Your task to perform on an android device: Open Reddit.com Image 0: 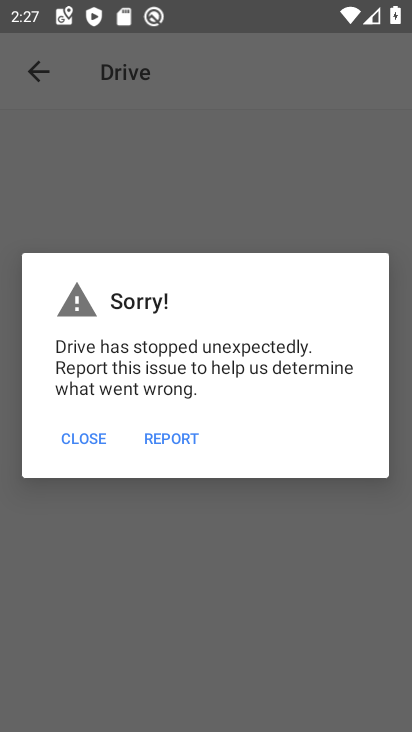
Step 0: press home button
Your task to perform on an android device: Open Reddit.com Image 1: 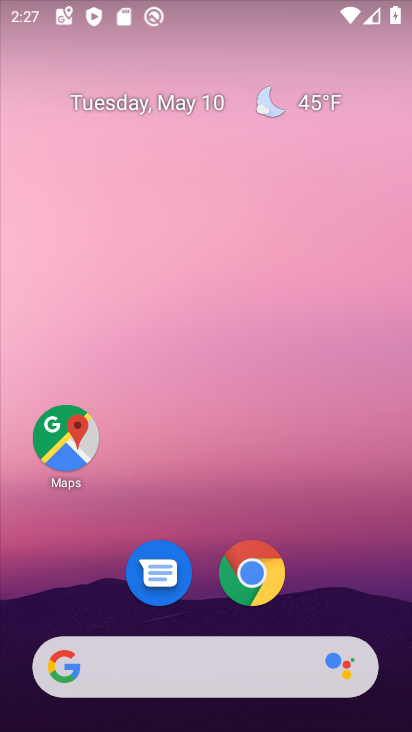
Step 1: click (266, 584)
Your task to perform on an android device: Open Reddit.com Image 2: 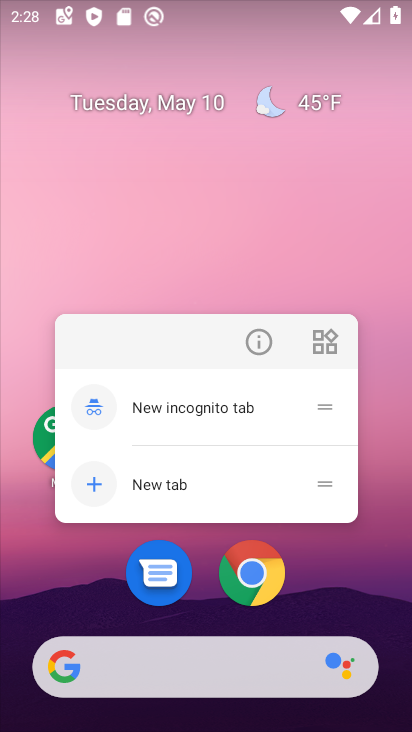
Step 2: click (244, 546)
Your task to perform on an android device: Open Reddit.com Image 3: 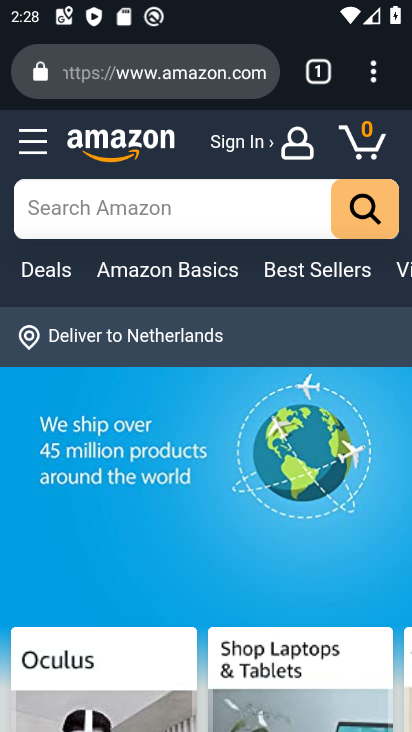
Step 3: click (311, 78)
Your task to perform on an android device: Open Reddit.com Image 4: 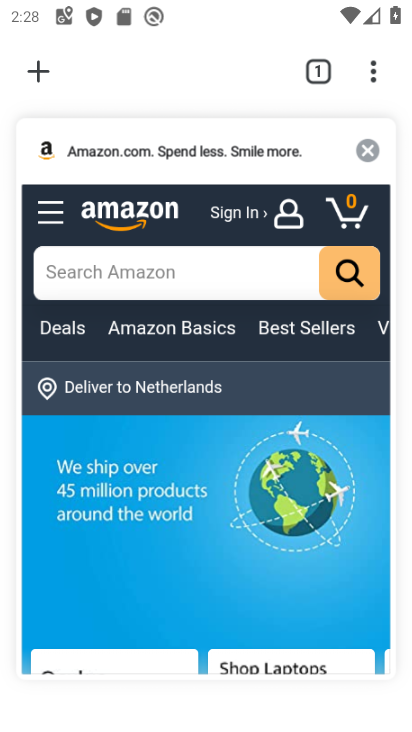
Step 4: click (46, 77)
Your task to perform on an android device: Open Reddit.com Image 5: 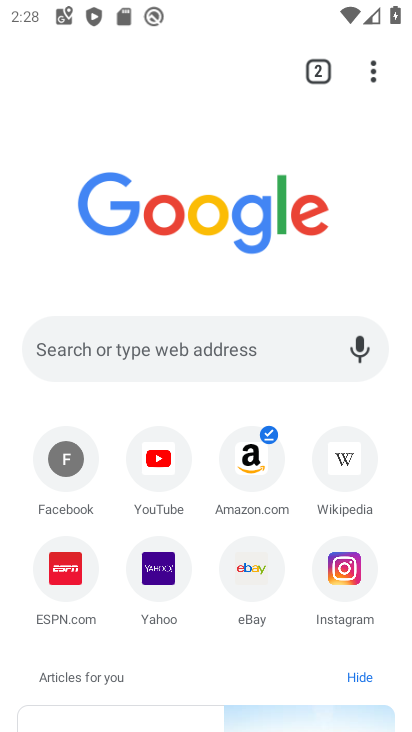
Step 5: type "Reddit.com"
Your task to perform on an android device: Open Reddit.com Image 6: 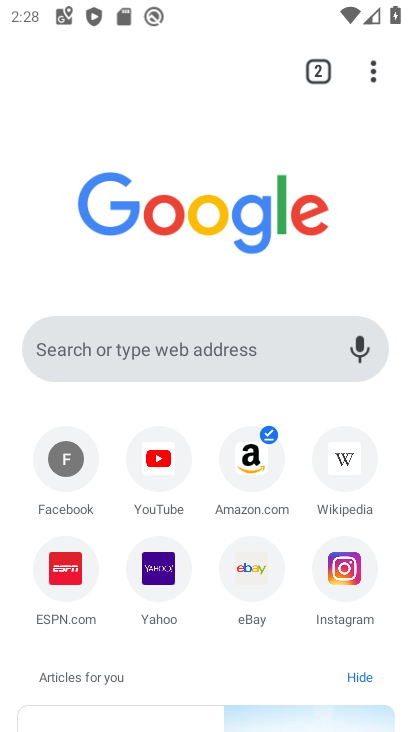
Step 6: click (214, 354)
Your task to perform on an android device: Open Reddit.com Image 7: 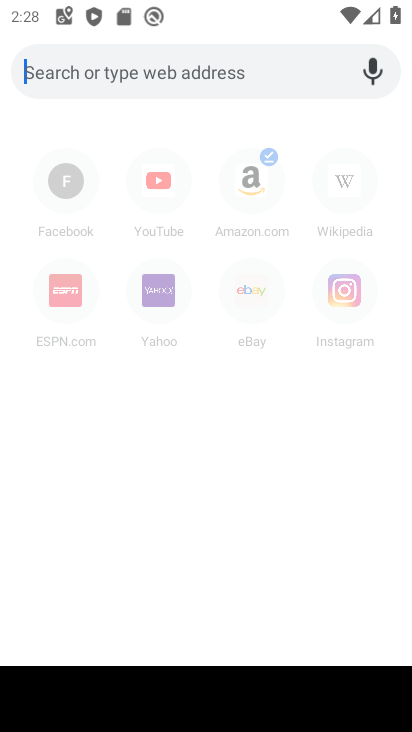
Step 7: type "Reddit.com"
Your task to perform on an android device: Open Reddit.com Image 8: 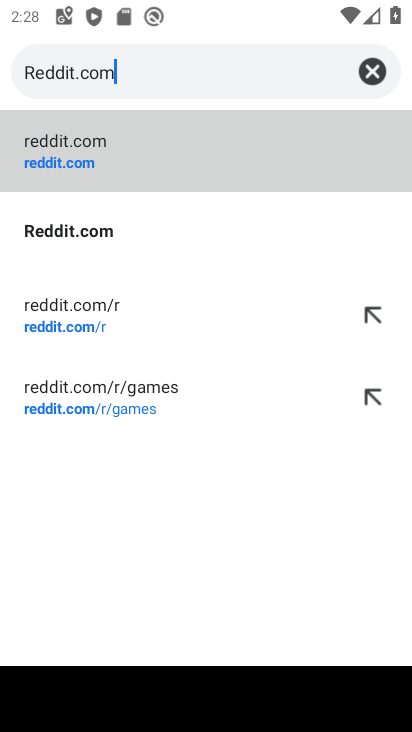
Step 8: click (109, 166)
Your task to perform on an android device: Open Reddit.com Image 9: 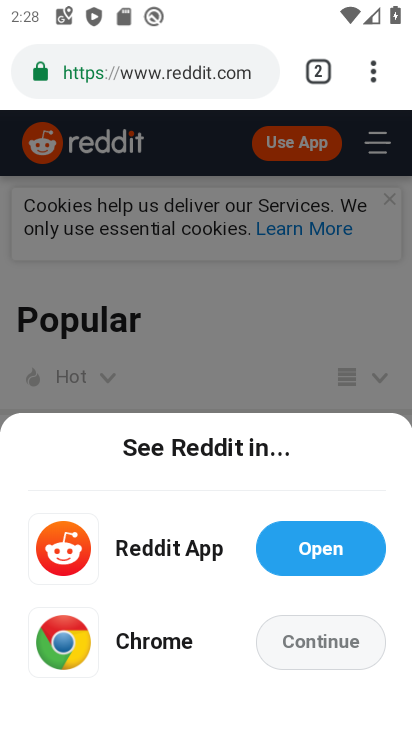
Step 9: click (327, 649)
Your task to perform on an android device: Open Reddit.com Image 10: 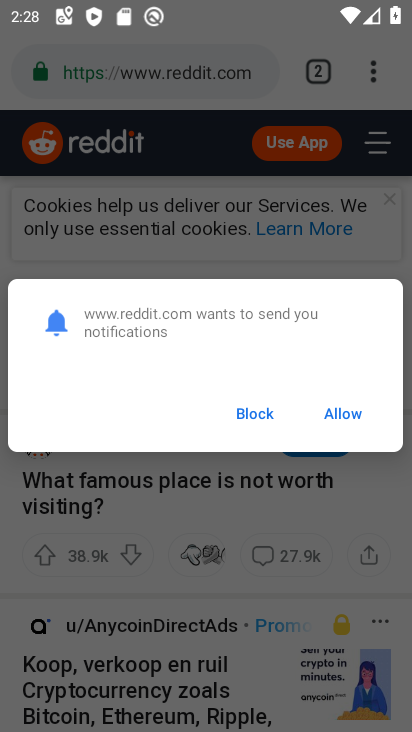
Step 10: click (255, 407)
Your task to perform on an android device: Open Reddit.com Image 11: 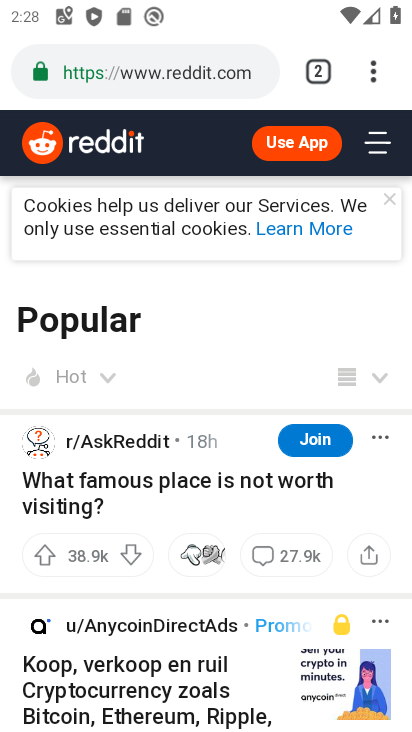
Step 11: task complete